Your task to perform on an android device: toggle pop-ups in chrome Image 0: 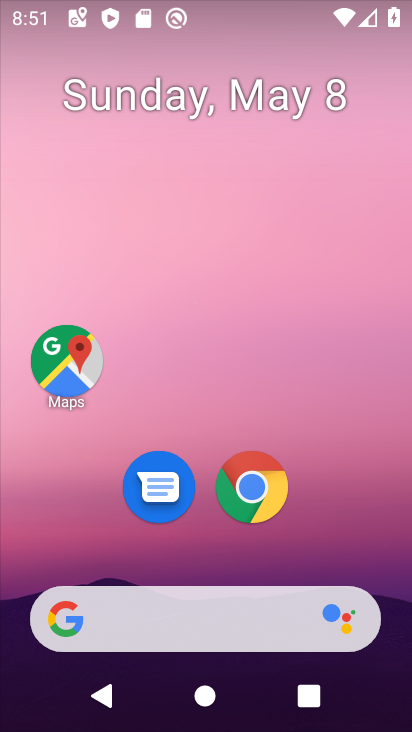
Step 0: click (242, 484)
Your task to perform on an android device: toggle pop-ups in chrome Image 1: 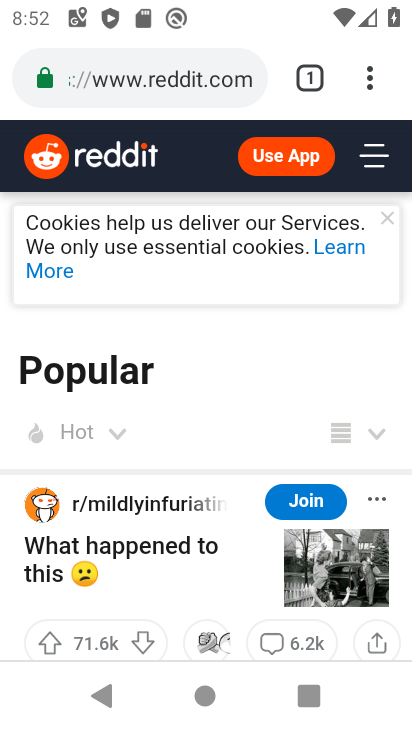
Step 1: drag from (372, 81) to (108, 542)
Your task to perform on an android device: toggle pop-ups in chrome Image 2: 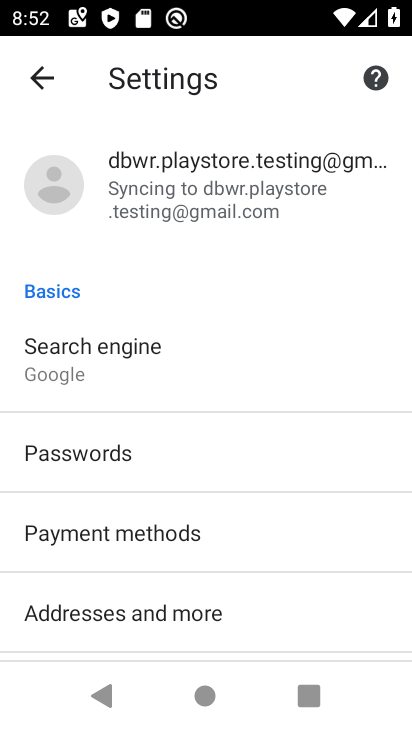
Step 2: drag from (175, 573) to (193, 297)
Your task to perform on an android device: toggle pop-ups in chrome Image 3: 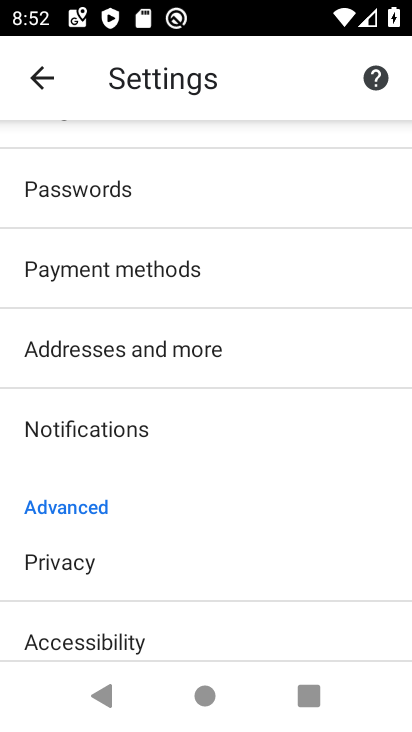
Step 3: drag from (141, 567) to (186, 263)
Your task to perform on an android device: toggle pop-ups in chrome Image 4: 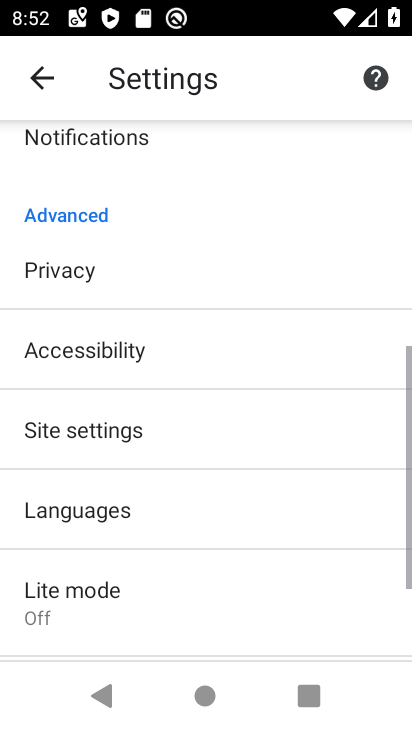
Step 4: drag from (183, 537) to (183, 435)
Your task to perform on an android device: toggle pop-ups in chrome Image 5: 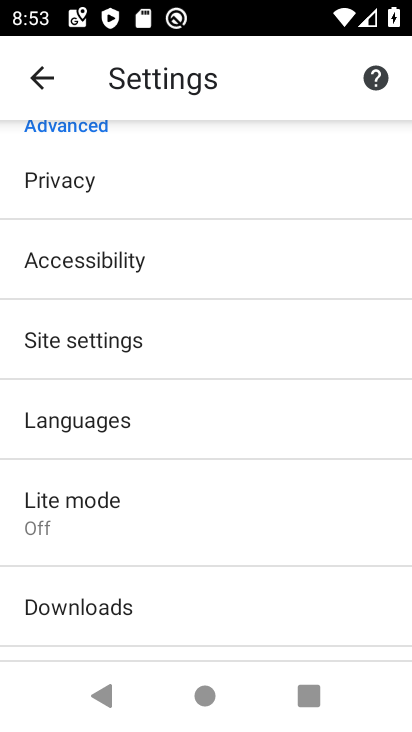
Step 5: click (69, 344)
Your task to perform on an android device: toggle pop-ups in chrome Image 6: 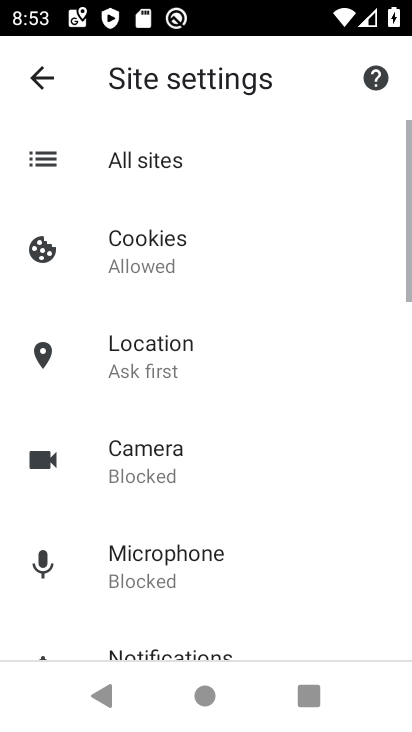
Step 6: drag from (171, 656) to (171, 336)
Your task to perform on an android device: toggle pop-ups in chrome Image 7: 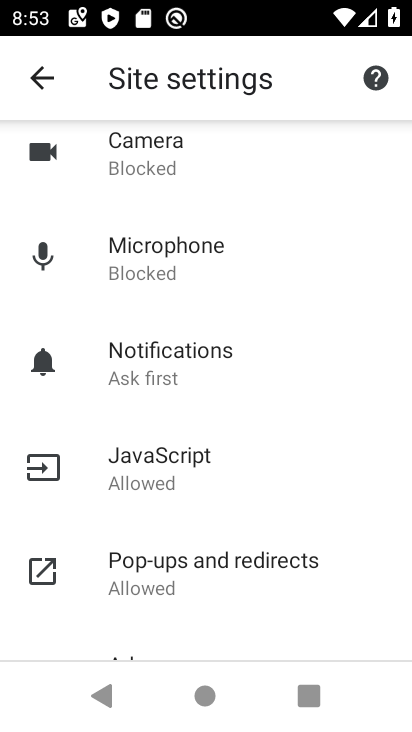
Step 7: click (162, 560)
Your task to perform on an android device: toggle pop-ups in chrome Image 8: 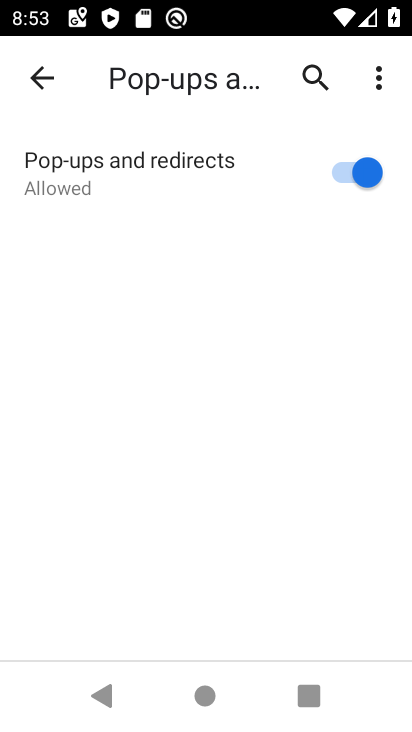
Step 8: click (332, 160)
Your task to perform on an android device: toggle pop-ups in chrome Image 9: 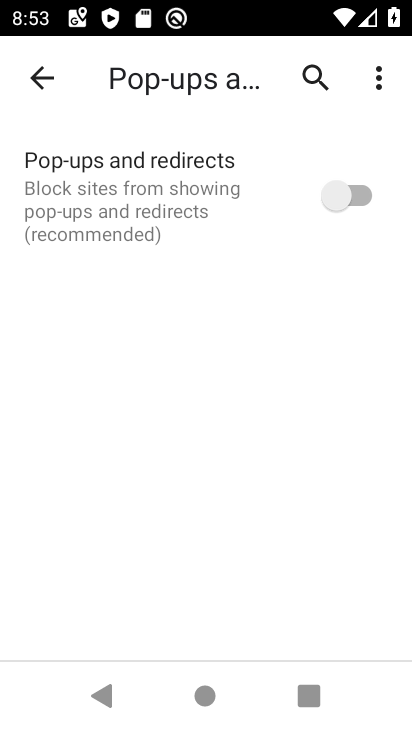
Step 9: task complete